Your task to perform on an android device: Check the weather Image 0: 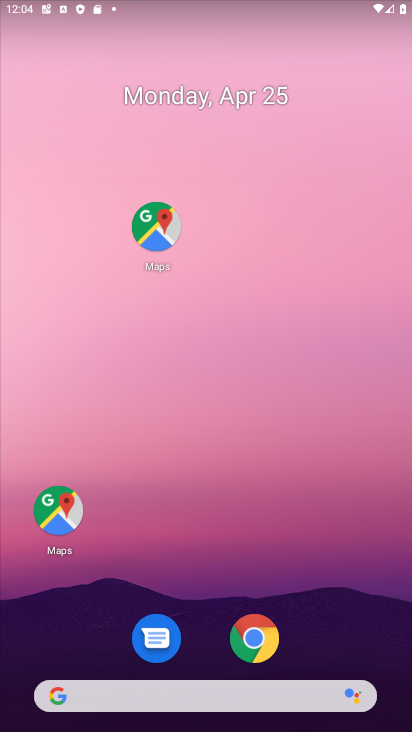
Step 0: drag from (300, 485) to (277, 94)
Your task to perform on an android device: Check the weather Image 1: 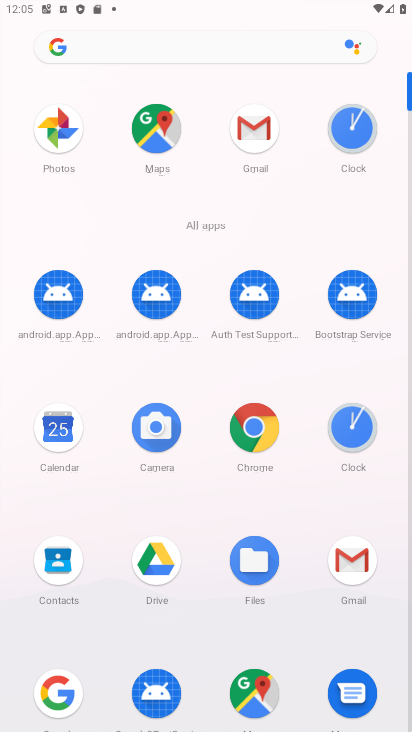
Step 1: press home button
Your task to perform on an android device: Check the weather Image 2: 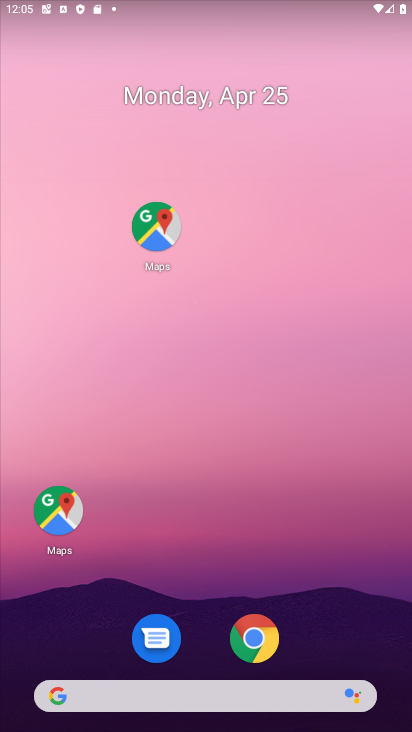
Step 2: drag from (96, 210) to (381, 316)
Your task to perform on an android device: Check the weather Image 3: 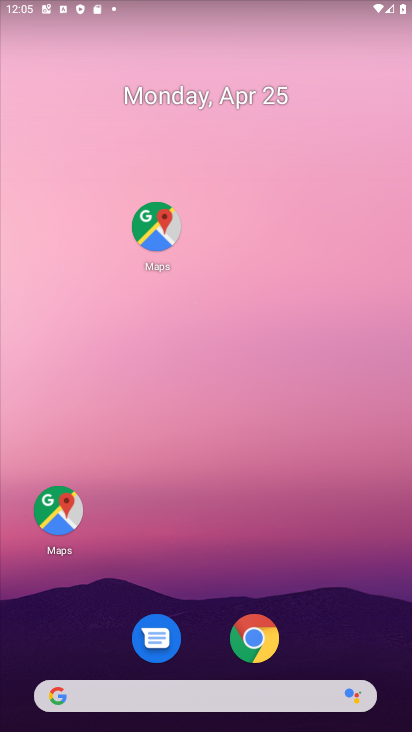
Step 3: drag from (178, 228) to (374, 194)
Your task to perform on an android device: Check the weather Image 4: 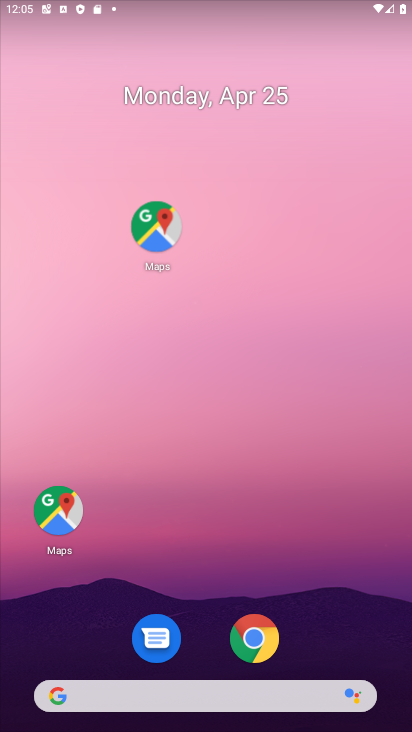
Step 4: drag from (298, 212) to (370, 295)
Your task to perform on an android device: Check the weather Image 5: 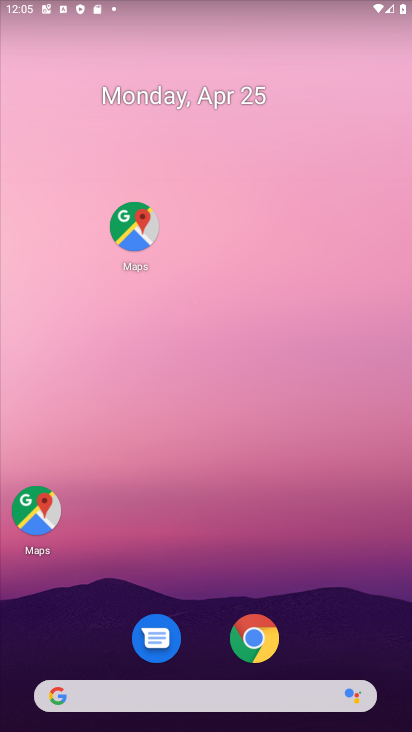
Step 5: drag from (52, 126) to (369, 260)
Your task to perform on an android device: Check the weather Image 6: 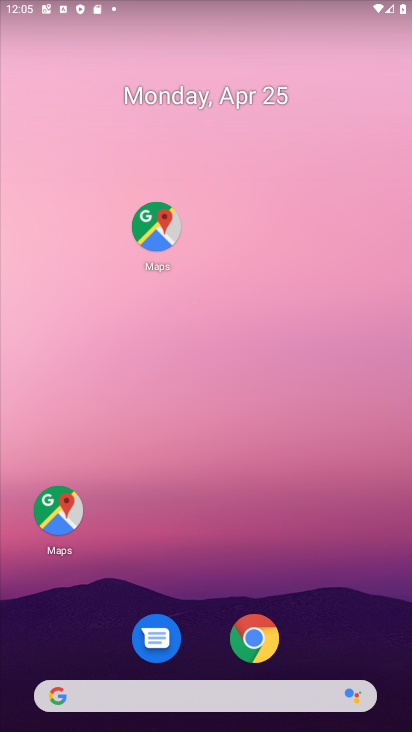
Step 6: click (358, 228)
Your task to perform on an android device: Check the weather Image 7: 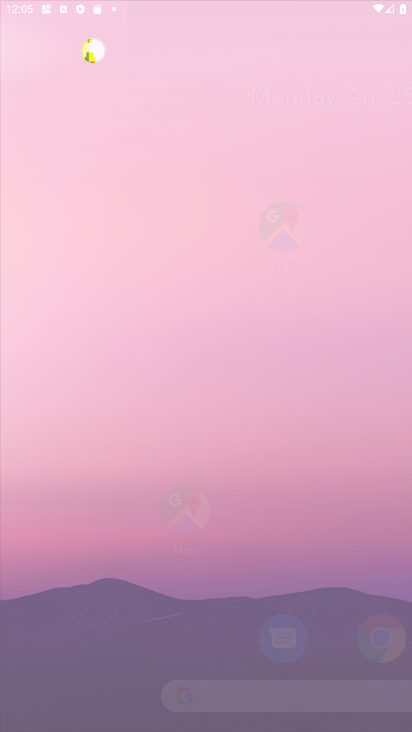
Step 7: click (317, 391)
Your task to perform on an android device: Check the weather Image 8: 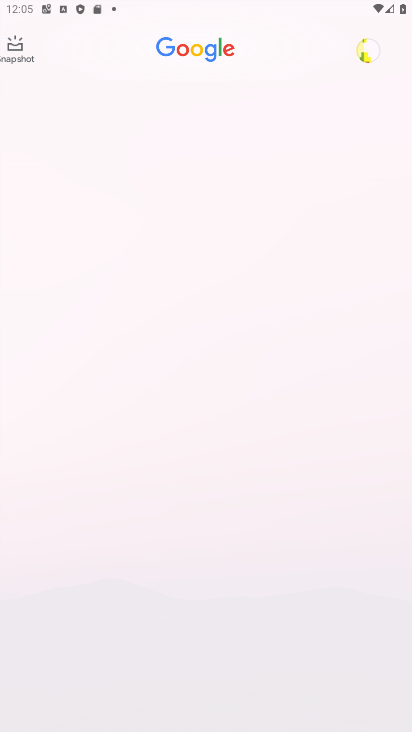
Step 8: click (367, 369)
Your task to perform on an android device: Check the weather Image 9: 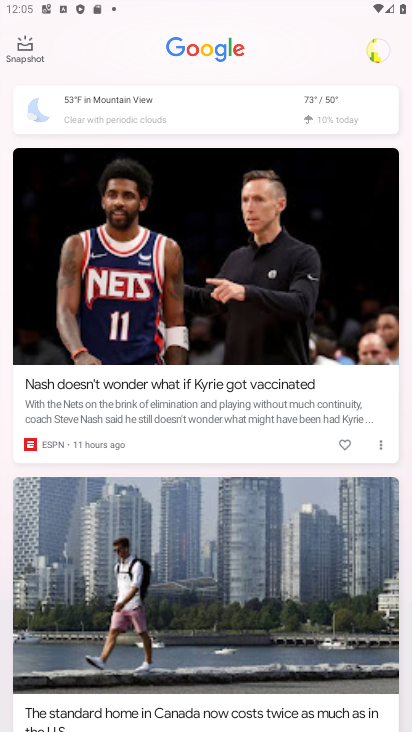
Step 9: click (276, 103)
Your task to perform on an android device: Check the weather Image 10: 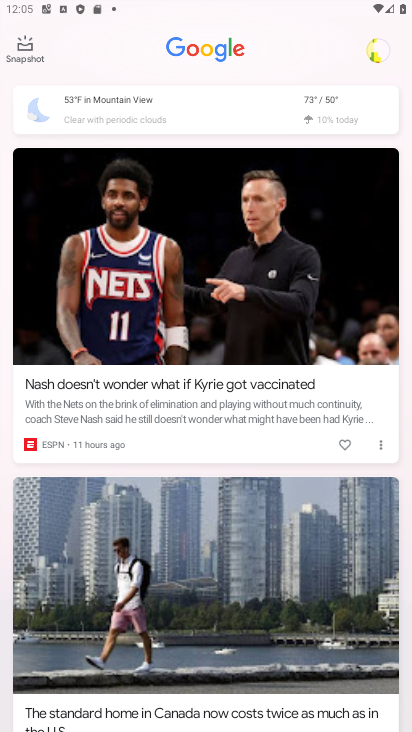
Step 10: click (302, 113)
Your task to perform on an android device: Check the weather Image 11: 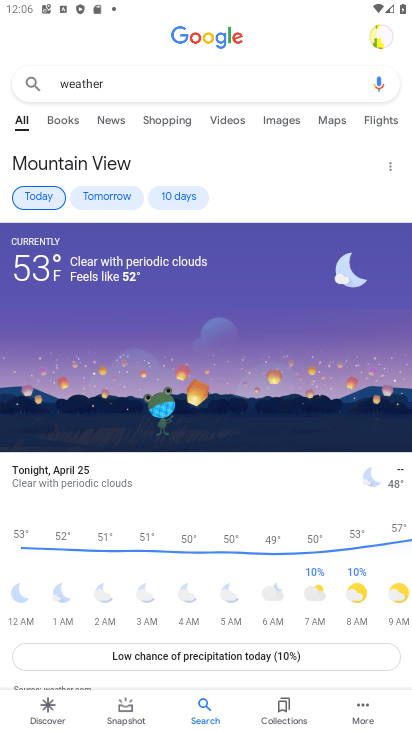
Step 11: task complete